Your task to perform on an android device: turn notification dots off Image 0: 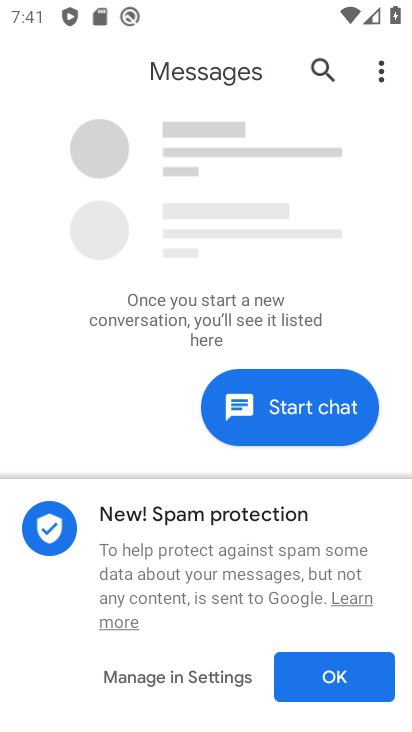
Step 0: press home button
Your task to perform on an android device: turn notification dots off Image 1: 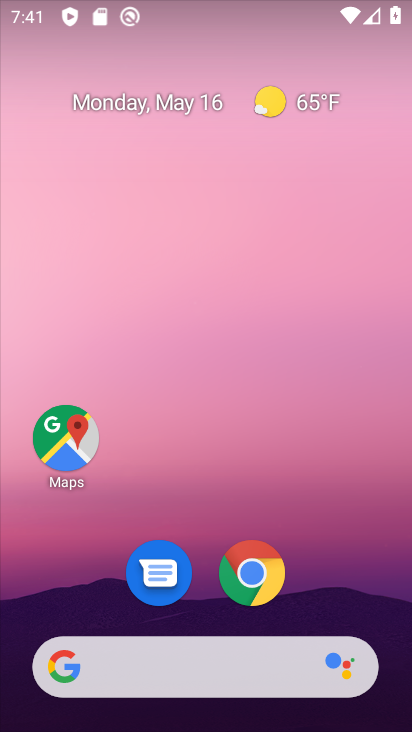
Step 1: drag from (309, 617) to (279, 9)
Your task to perform on an android device: turn notification dots off Image 2: 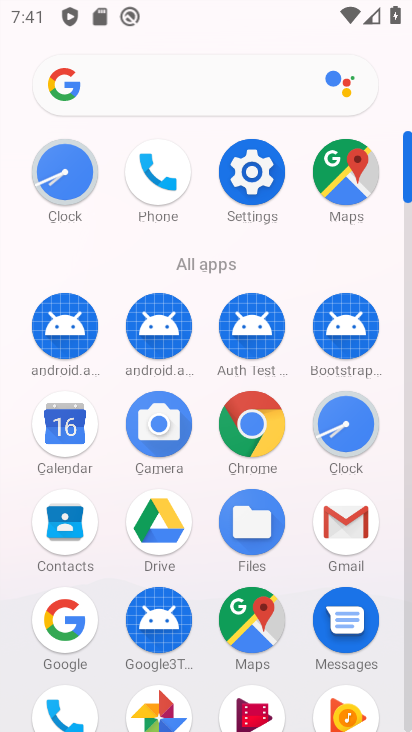
Step 2: click (255, 164)
Your task to perform on an android device: turn notification dots off Image 3: 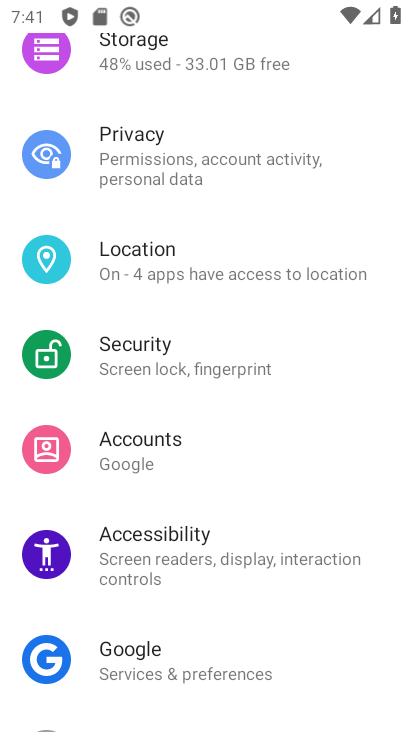
Step 3: drag from (235, 198) to (309, 503)
Your task to perform on an android device: turn notification dots off Image 4: 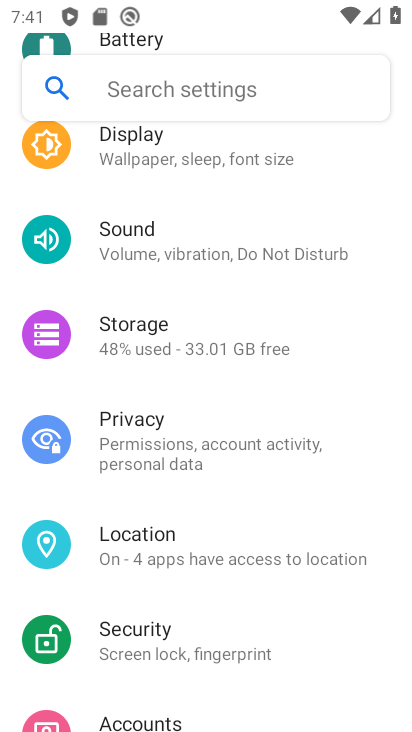
Step 4: drag from (274, 250) to (281, 427)
Your task to perform on an android device: turn notification dots off Image 5: 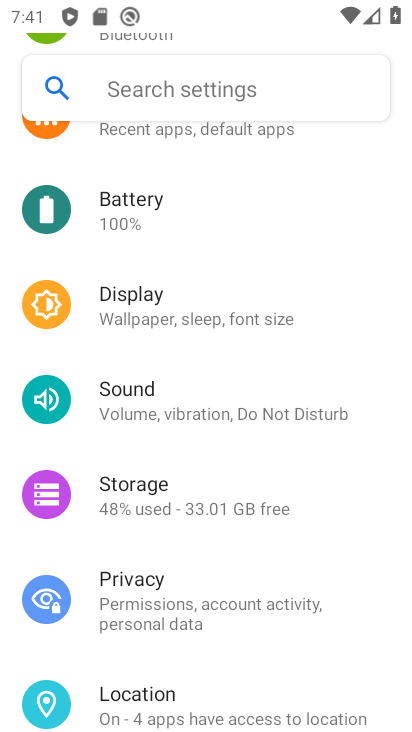
Step 5: drag from (272, 247) to (282, 381)
Your task to perform on an android device: turn notification dots off Image 6: 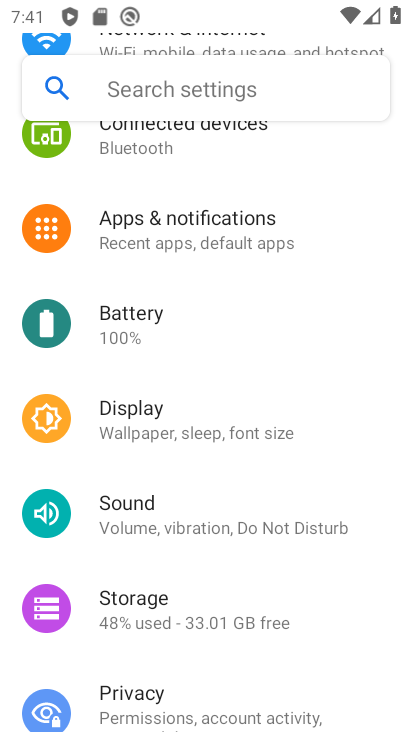
Step 6: click (224, 222)
Your task to perform on an android device: turn notification dots off Image 7: 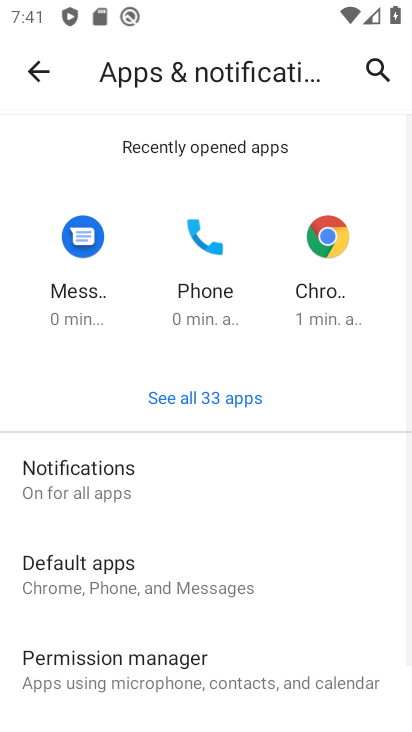
Step 7: click (92, 494)
Your task to perform on an android device: turn notification dots off Image 8: 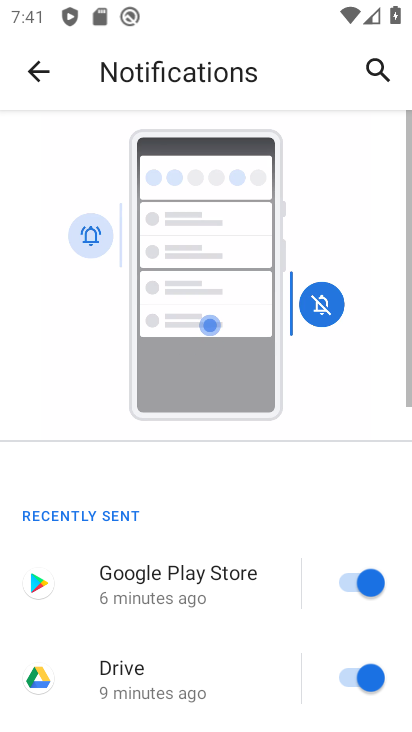
Step 8: drag from (141, 583) to (139, 312)
Your task to perform on an android device: turn notification dots off Image 9: 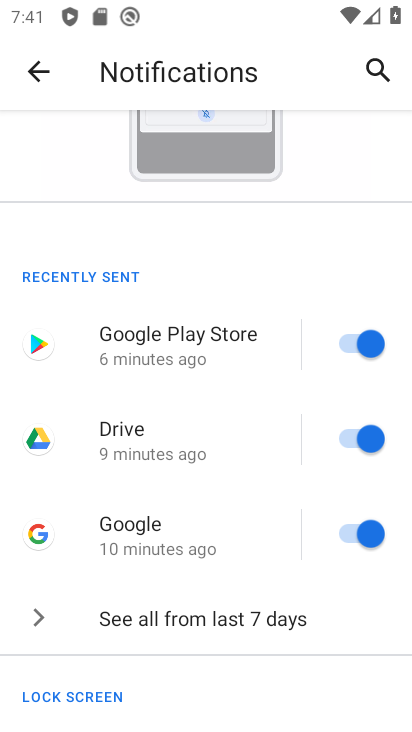
Step 9: drag from (169, 628) to (192, 418)
Your task to perform on an android device: turn notification dots off Image 10: 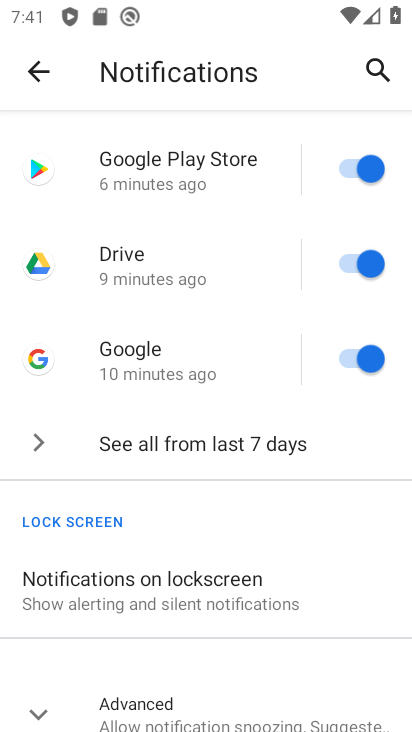
Step 10: drag from (185, 611) to (238, 413)
Your task to perform on an android device: turn notification dots off Image 11: 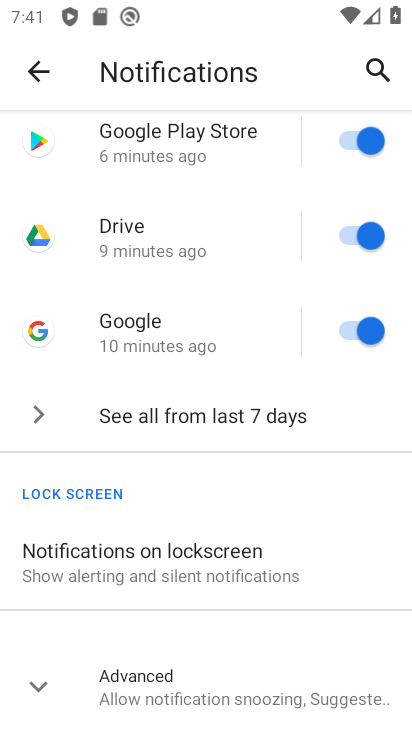
Step 11: click (204, 699)
Your task to perform on an android device: turn notification dots off Image 12: 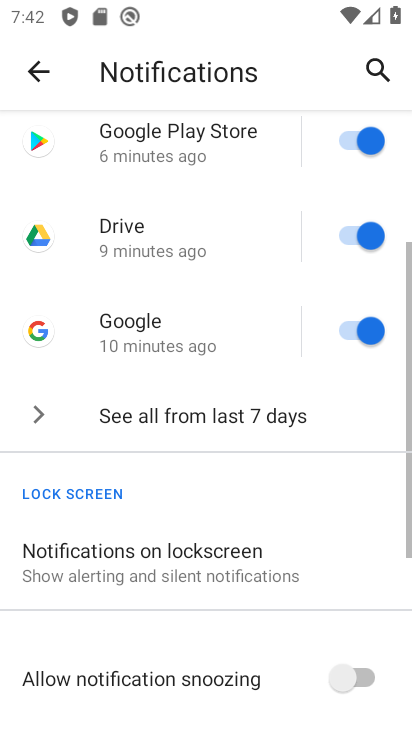
Step 12: drag from (204, 693) to (212, 452)
Your task to perform on an android device: turn notification dots off Image 13: 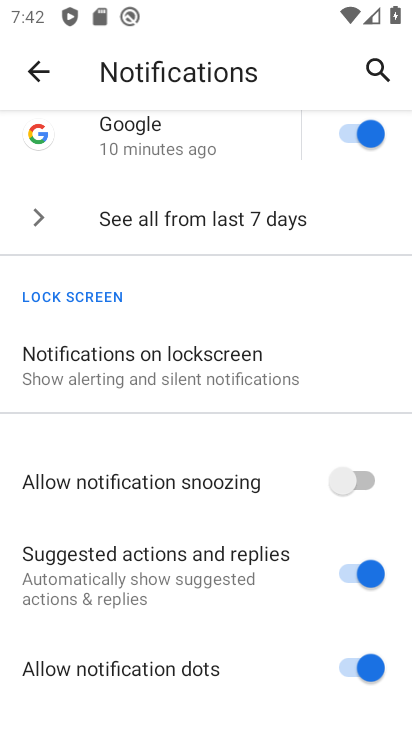
Step 13: click (356, 673)
Your task to perform on an android device: turn notification dots off Image 14: 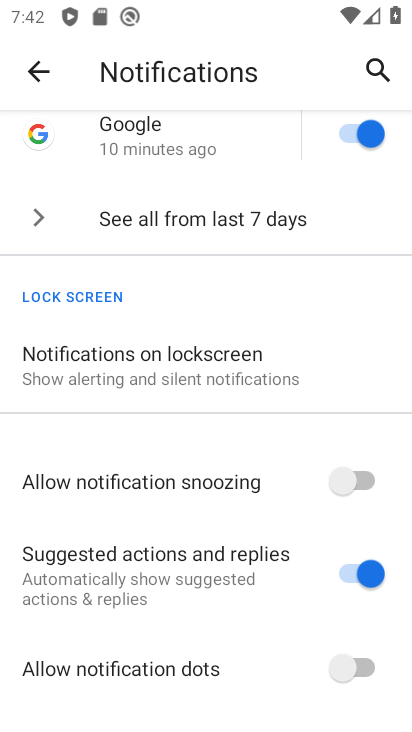
Step 14: task complete